Your task to perform on an android device: stop showing notifications on the lock screen Image 0: 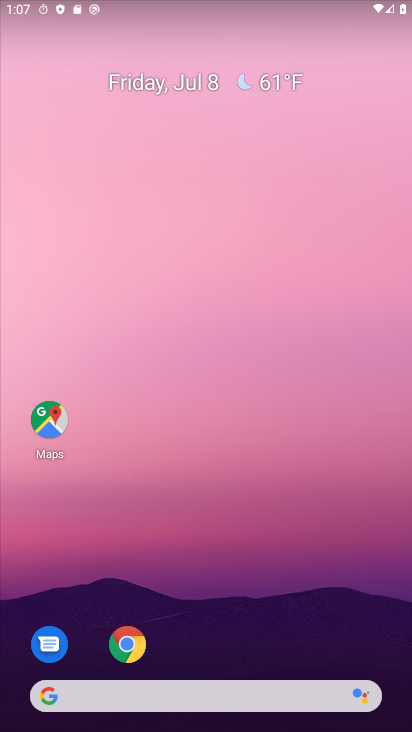
Step 0: drag from (193, 605) to (201, 300)
Your task to perform on an android device: stop showing notifications on the lock screen Image 1: 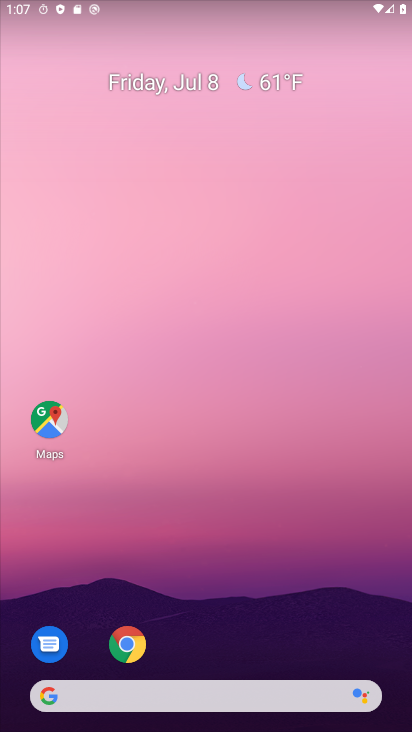
Step 1: drag from (200, 504) to (294, 29)
Your task to perform on an android device: stop showing notifications on the lock screen Image 2: 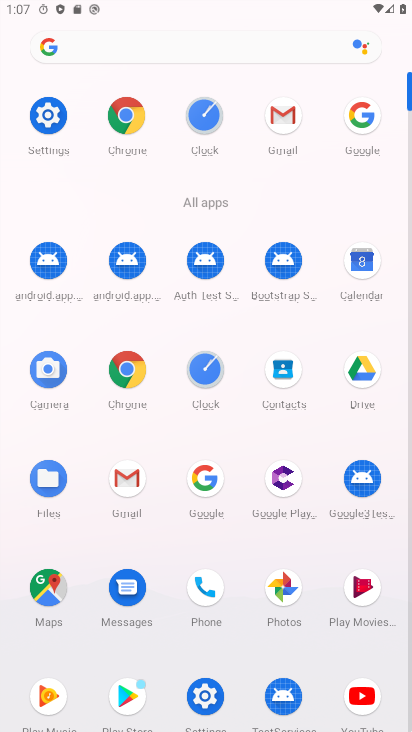
Step 2: click (53, 119)
Your task to perform on an android device: stop showing notifications on the lock screen Image 3: 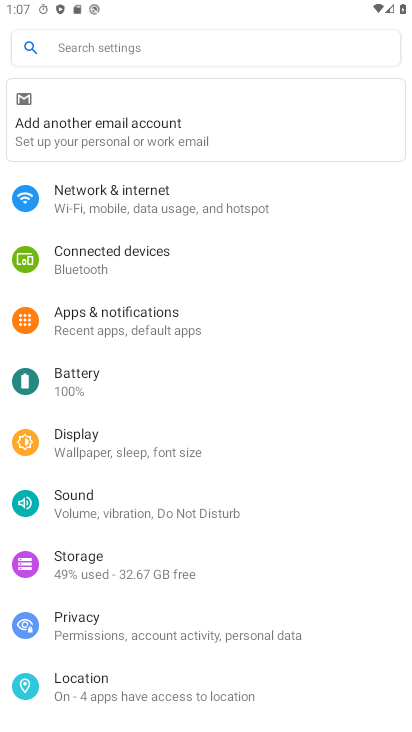
Step 3: click (71, 330)
Your task to perform on an android device: stop showing notifications on the lock screen Image 4: 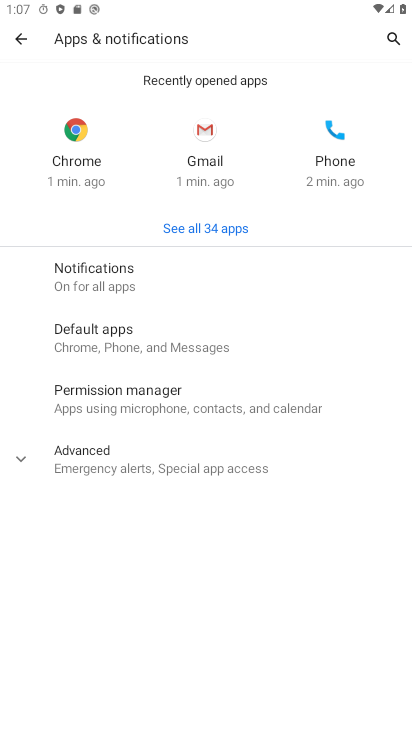
Step 4: click (109, 279)
Your task to perform on an android device: stop showing notifications on the lock screen Image 5: 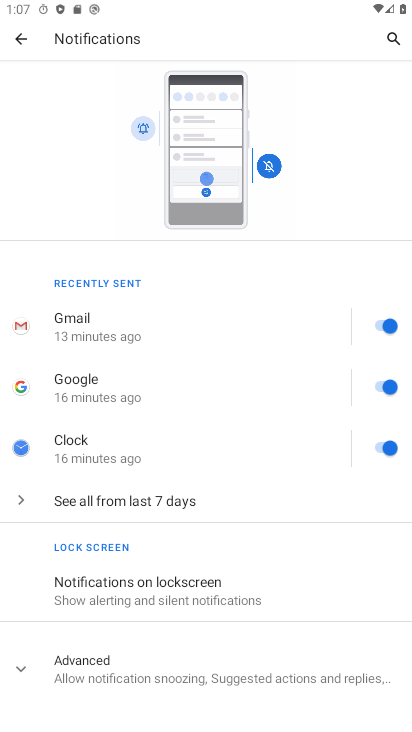
Step 5: click (78, 585)
Your task to perform on an android device: stop showing notifications on the lock screen Image 6: 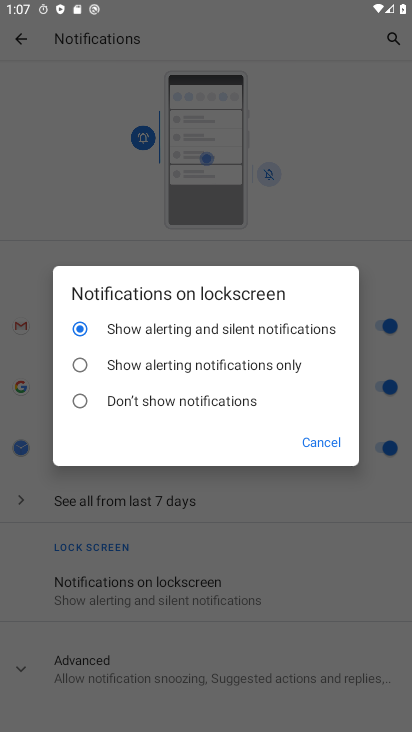
Step 6: click (80, 396)
Your task to perform on an android device: stop showing notifications on the lock screen Image 7: 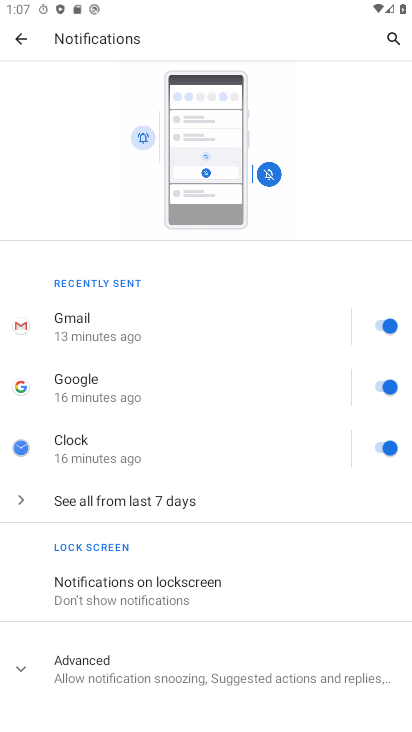
Step 7: task complete